Your task to perform on an android device: manage bookmarks in the chrome app Image 0: 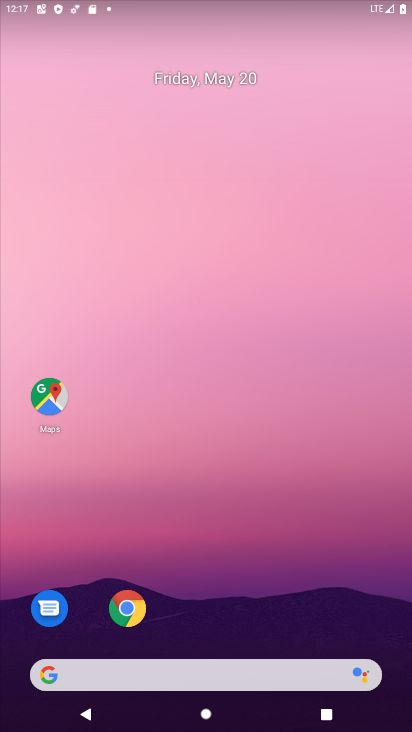
Step 0: drag from (327, 608) to (296, 192)
Your task to perform on an android device: manage bookmarks in the chrome app Image 1: 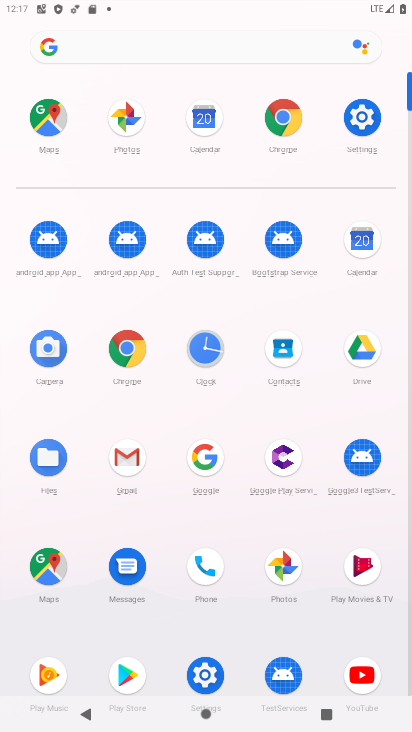
Step 1: click (281, 120)
Your task to perform on an android device: manage bookmarks in the chrome app Image 2: 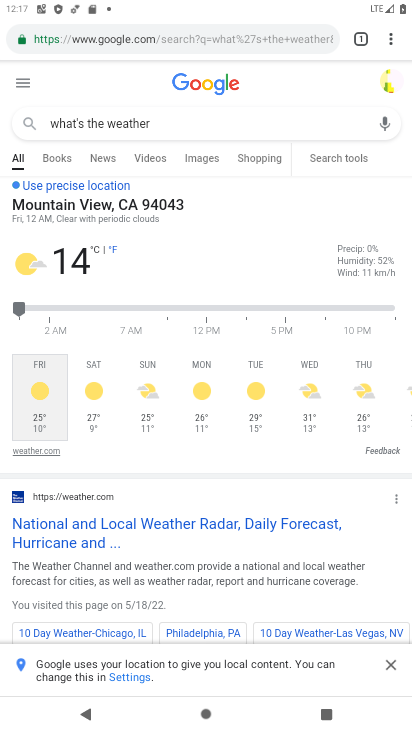
Step 2: task complete